Your task to perform on an android device: Open calendar and show me the second week of next month Image 0: 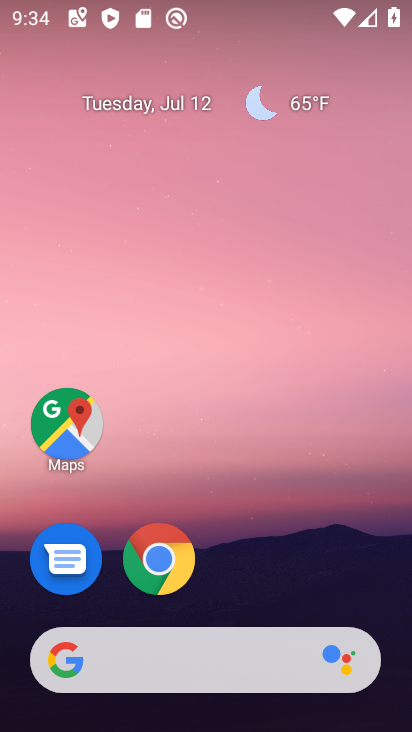
Step 0: drag from (324, 571) to (334, 124)
Your task to perform on an android device: Open calendar and show me the second week of next month Image 1: 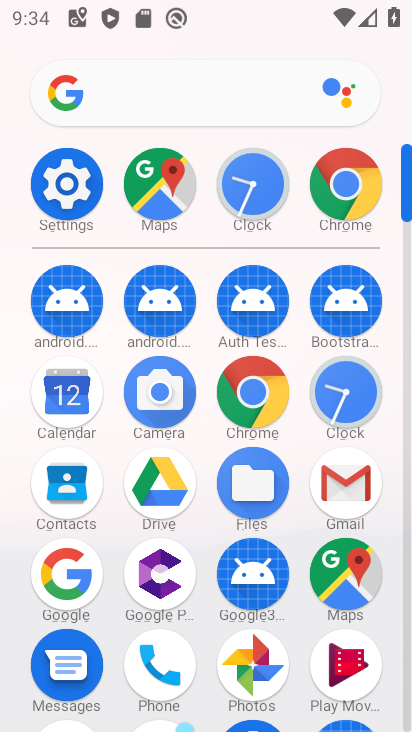
Step 1: click (70, 393)
Your task to perform on an android device: Open calendar and show me the second week of next month Image 2: 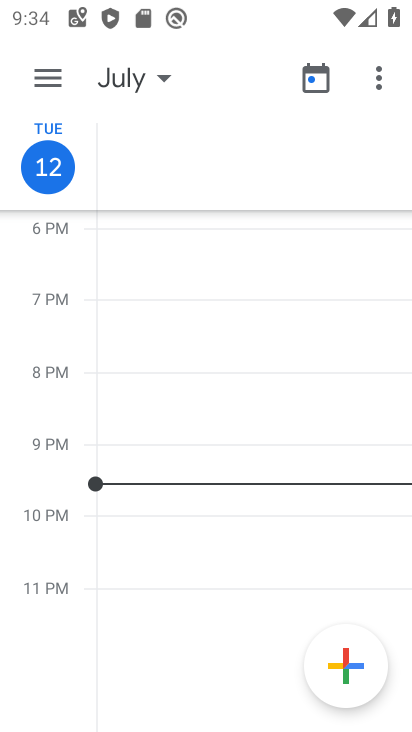
Step 2: click (166, 75)
Your task to perform on an android device: Open calendar and show me the second week of next month Image 3: 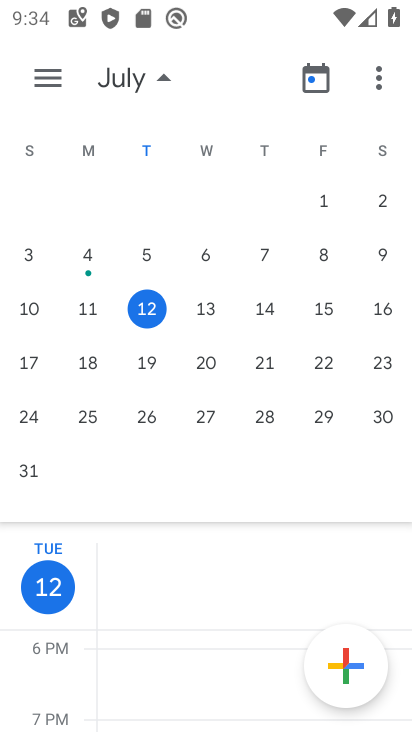
Step 3: drag from (396, 233) to (35, 198)
Your task to perform on an android device: Open calendar and show me the second week of next month Image 4: 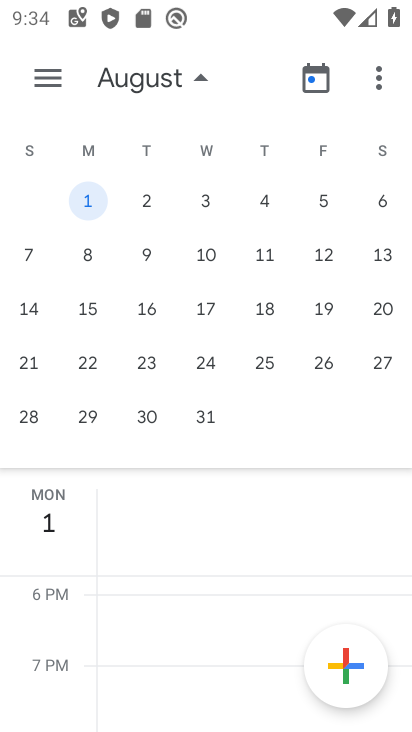
Step 4: click (88, 251)
Your task to perform on an android device: Open calendar and show me the second week of next month Image 5: 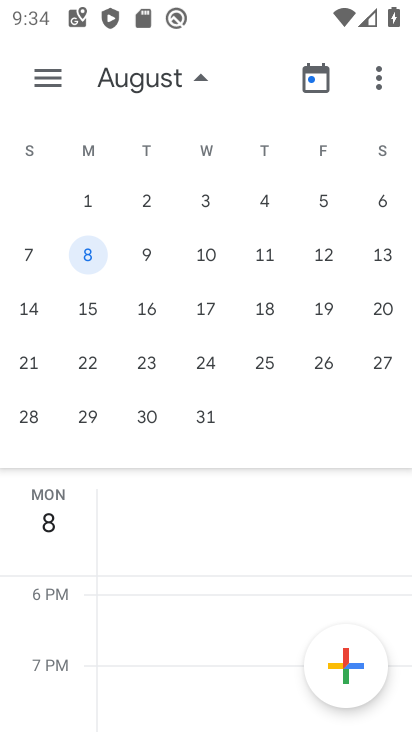
Step 5: task complete